Your task to perform on an android device: Open the calendar and show me this week's events? Image 0: 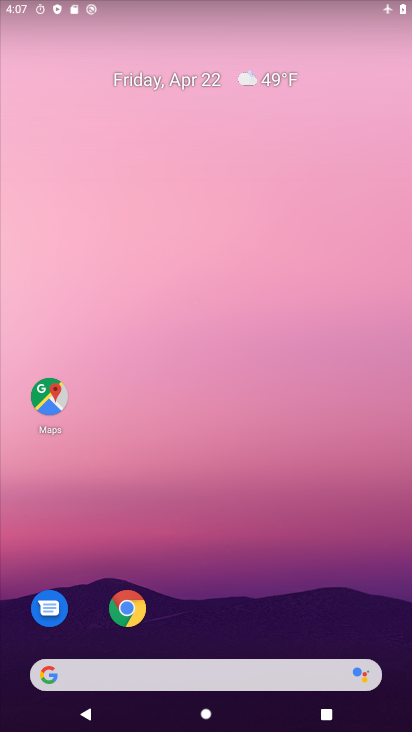
Step 0: drag from (272, 616) to (244, 25)
Your task to perform on an android device: Open the calendar and show me this week's events? Image 1: 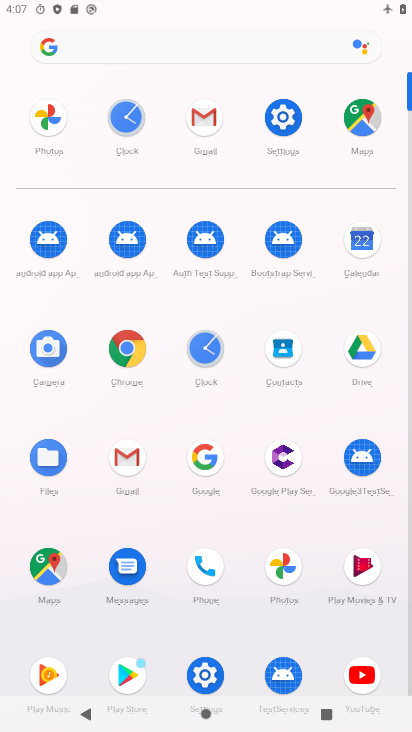
Step 1: click (360, 246)
Your task to perform on an android device: Open the calendar and show me this week's events? Image 2: 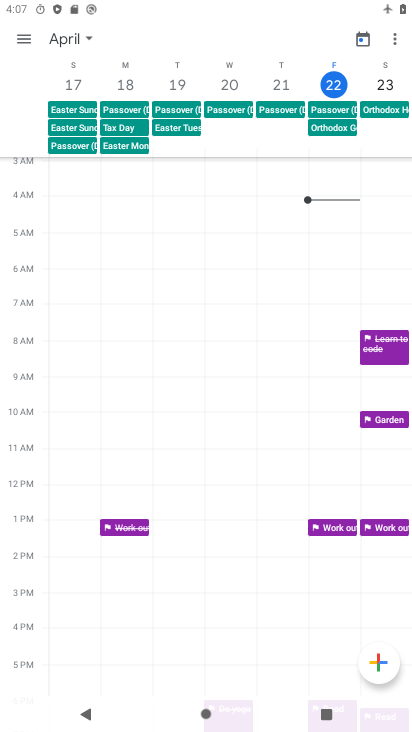
Step 2: click (25, 35)
Your task to perform on an android device: Open the calendar and show me this week's events? Image 3: 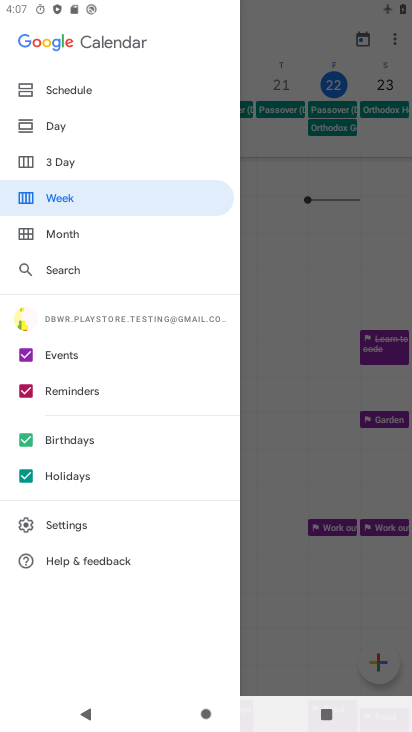
Step 3: click (26, 392)
Your task to perform on an android device: Open the calendar and show me this week's events? Image 4: 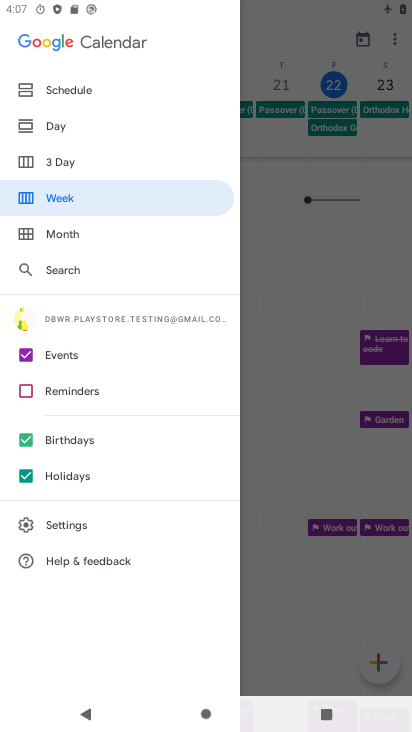
Step 4: click (30, 433)
Your task to perform on an android device: Open the calendar and show me this week's events? Image 5: 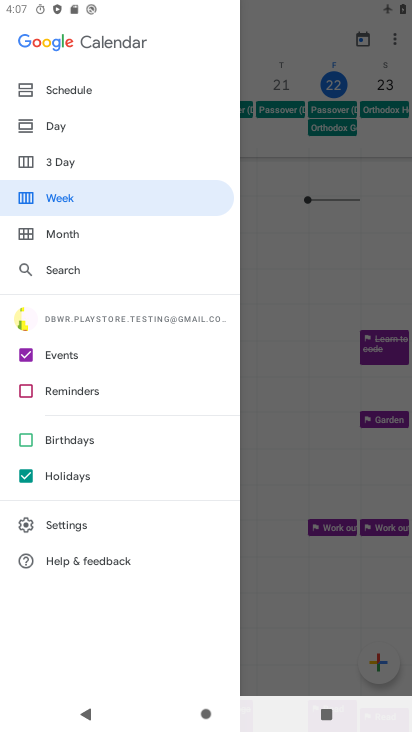
Step 5: click (22, 479)
Your task to perform on an android device: Open the calendar and show me this week's events? Image 6: 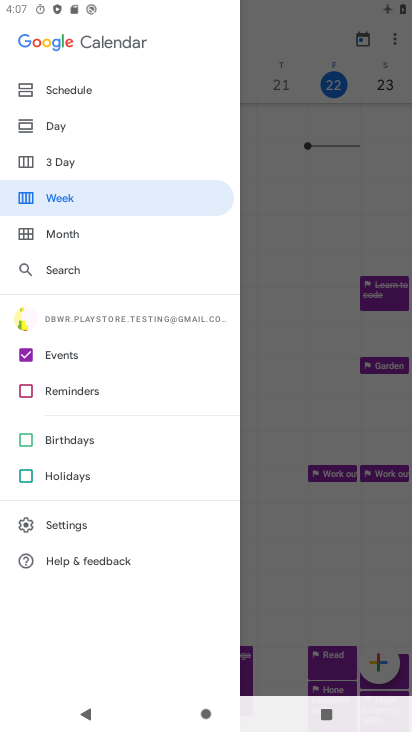
Step 6: click (278, 180)
Your task to perform on an android device: Open the calendar and show me this week's events? Image 7: 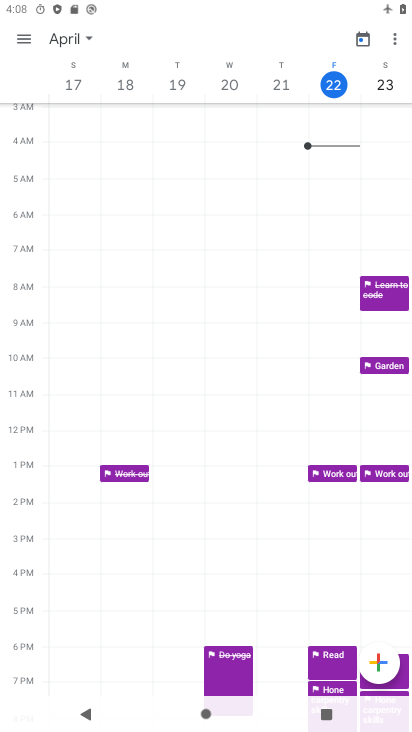
Step 7: task complete